Your task to perform on an android device: Add "rayovac triple a" to the cart on target, then select checkout. Image 0: 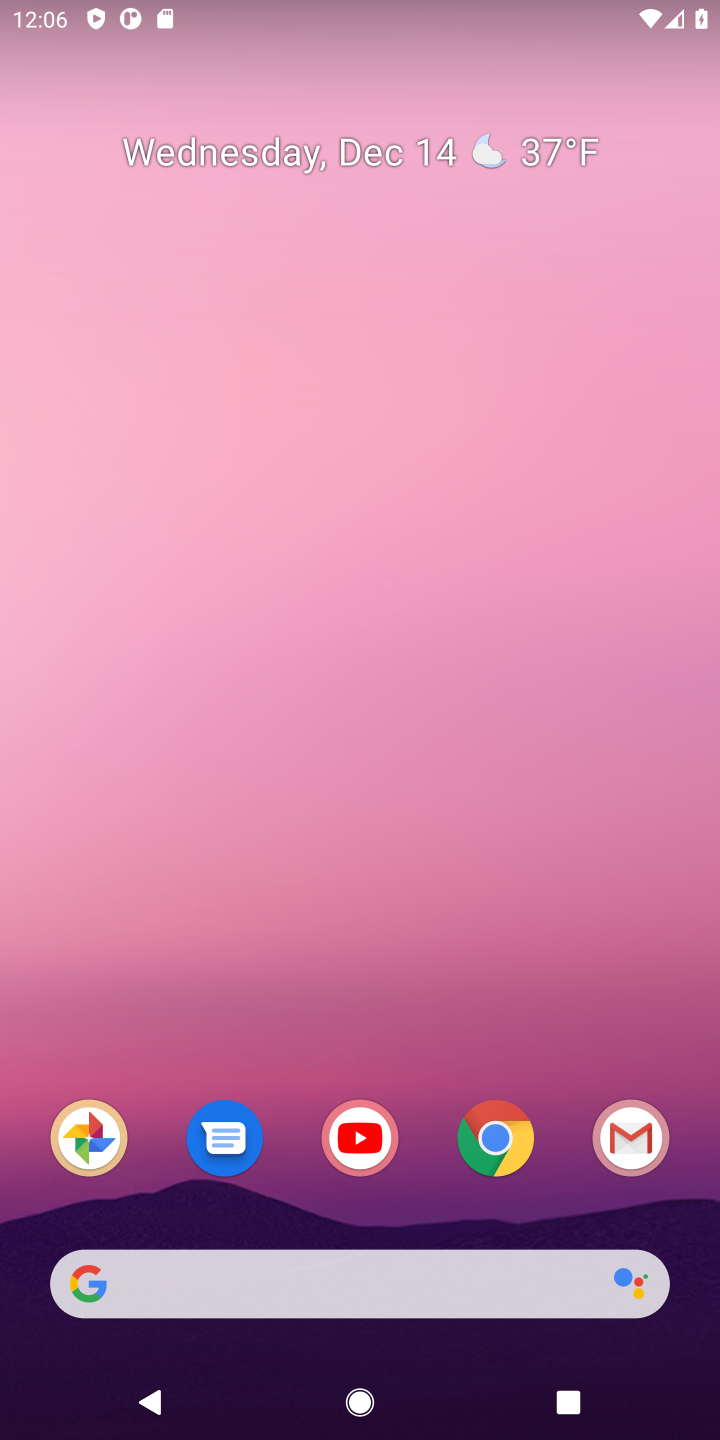
Step 0: press home button
Your task to perform on an android device: Add "rayovac triple a" to the cart on target, then select checkout. Image 1: 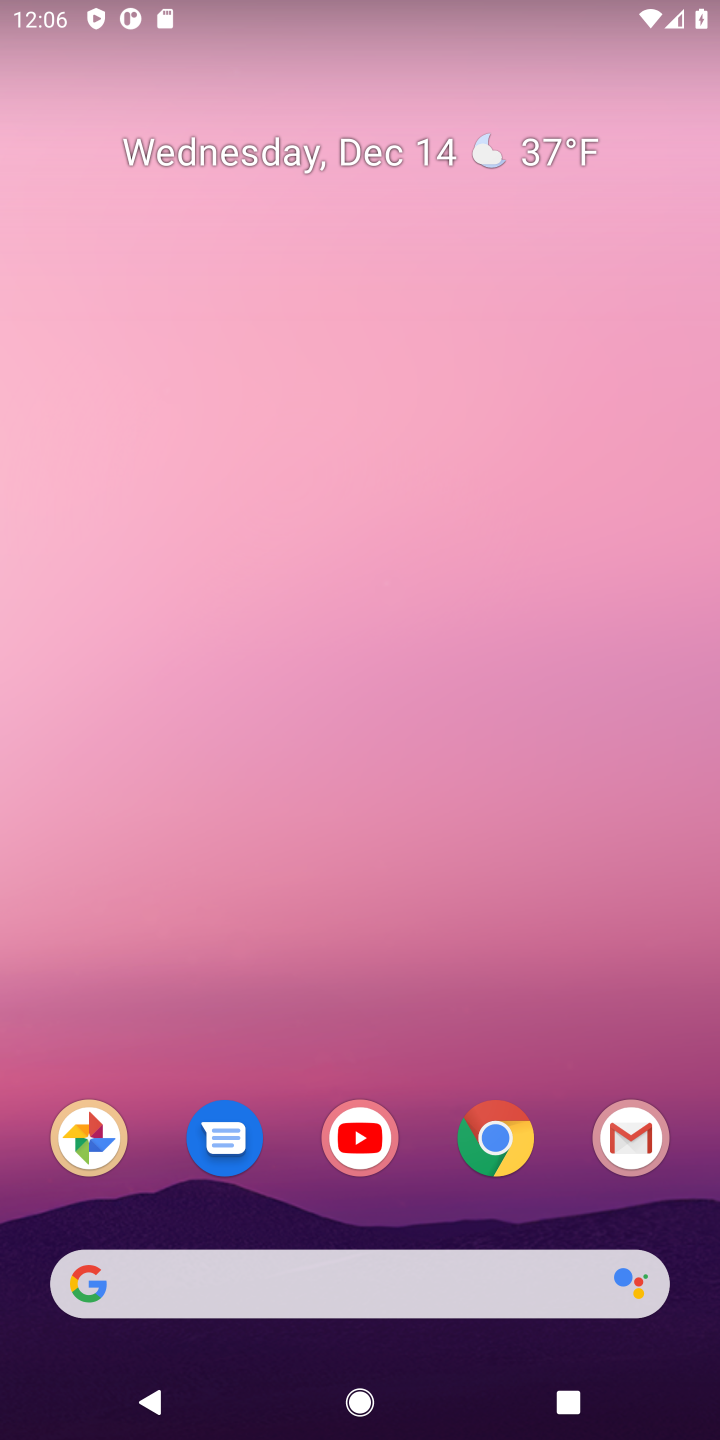
Step 1: click (509, 1120)
Your task to perform on an android device: Add "rayovac triple a" to the cart on target, then select checkout. Image 2: 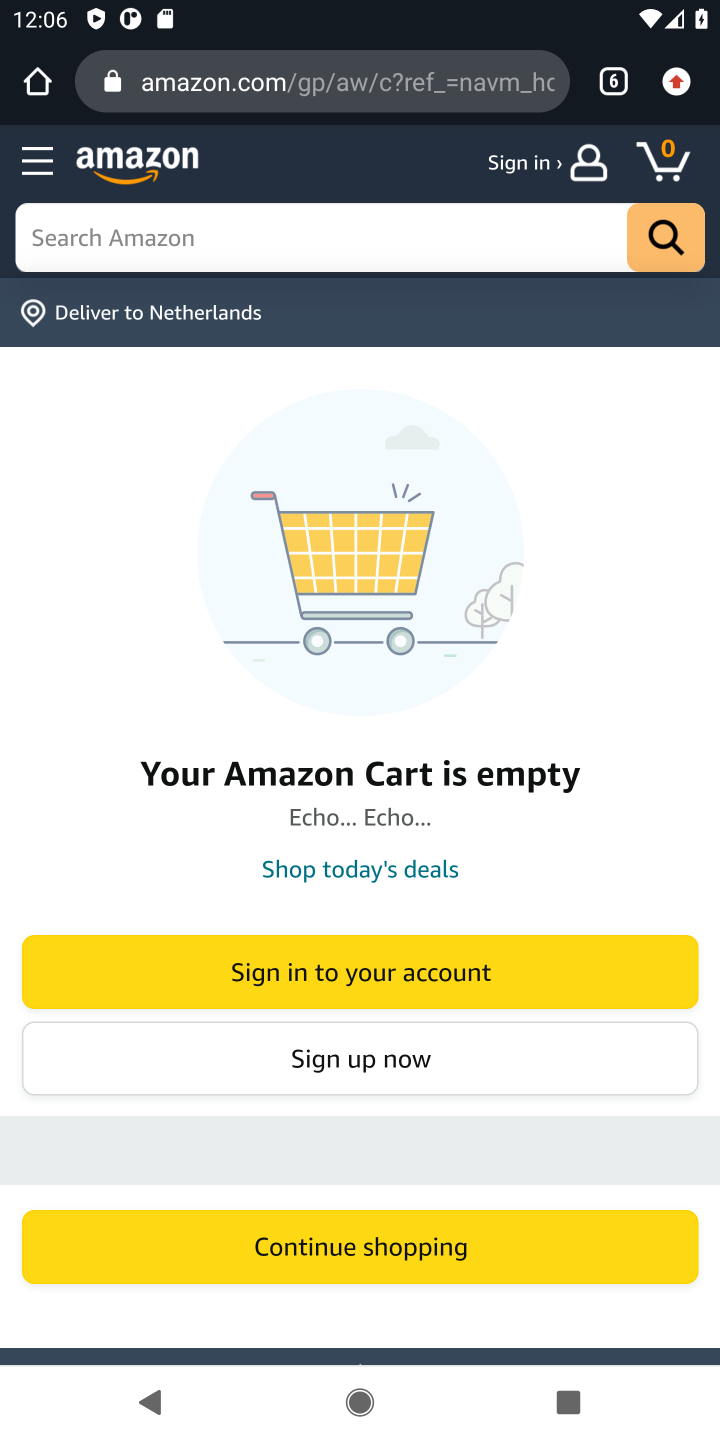
Step 2: click (617, 73)
Your task to perform on an android device: Add "rayovac triple a" to the cart on target, then select checkout. Image 3: 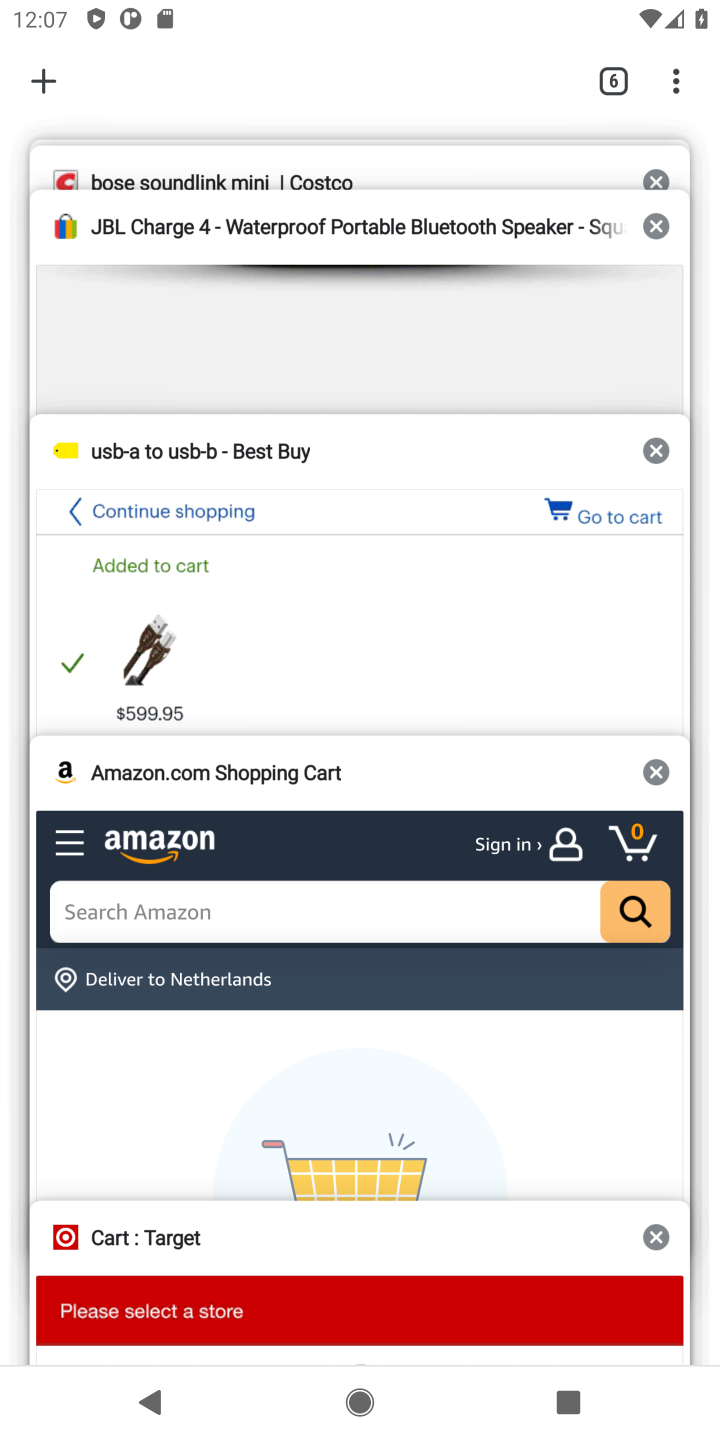
Step 3: click (243, 1263)
Your task to perform on an android device: Add "rayovac triple a" to the cart on target, then select checkout. Image 4: 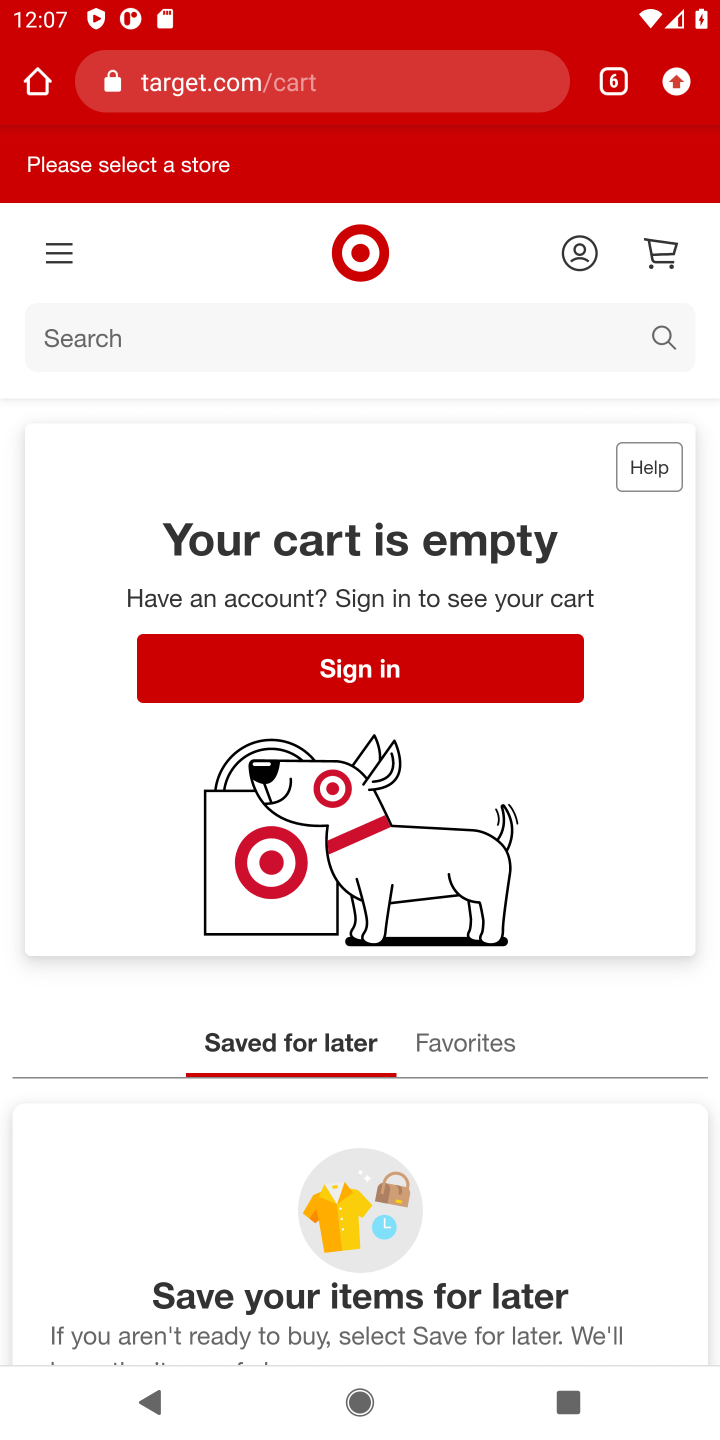
Step 4: click (267, 337)
Your task to perform on an android device: Add "rayovac triple a" to the cart on target, then select checkout. Image 5: 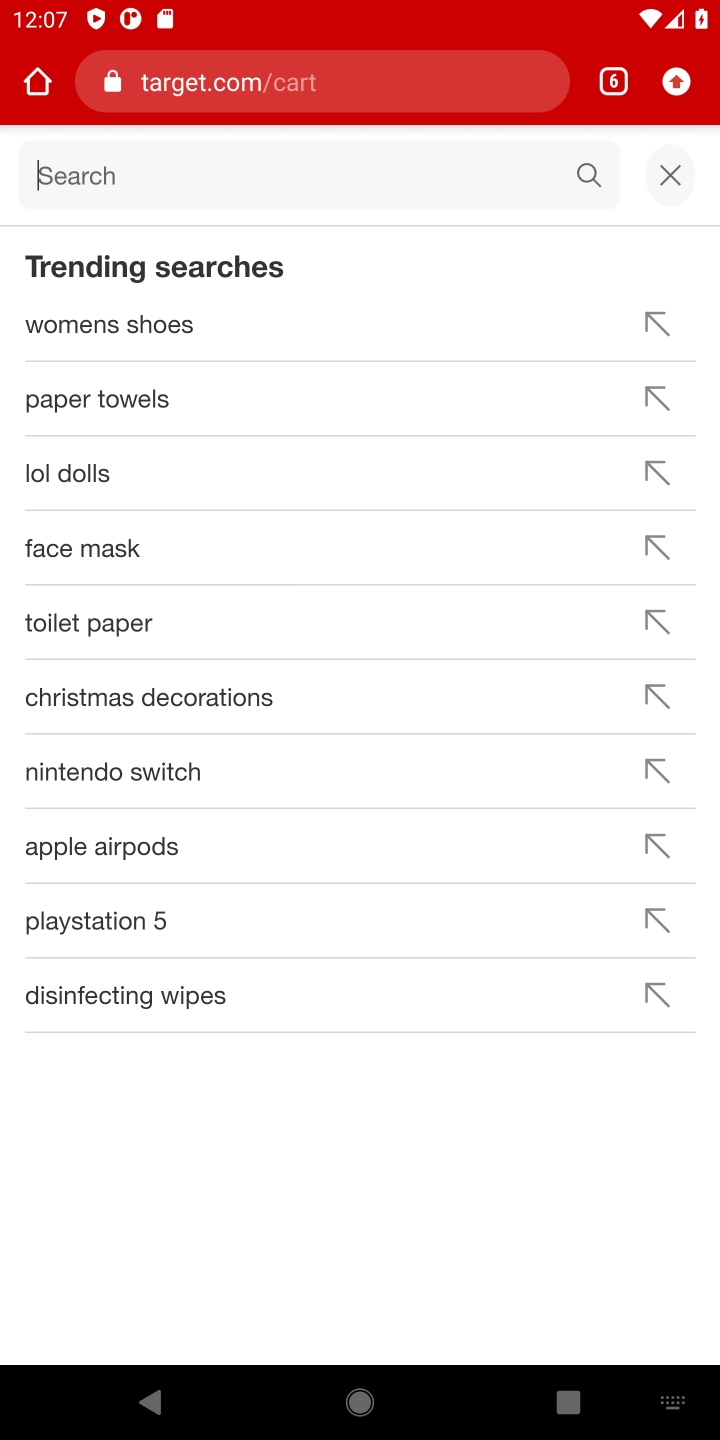
Step 5: type "rayovac triple a"
Your task to perform on an android device: Add "rayovac triple a" to the cart on target, then select checkout. Image 6: 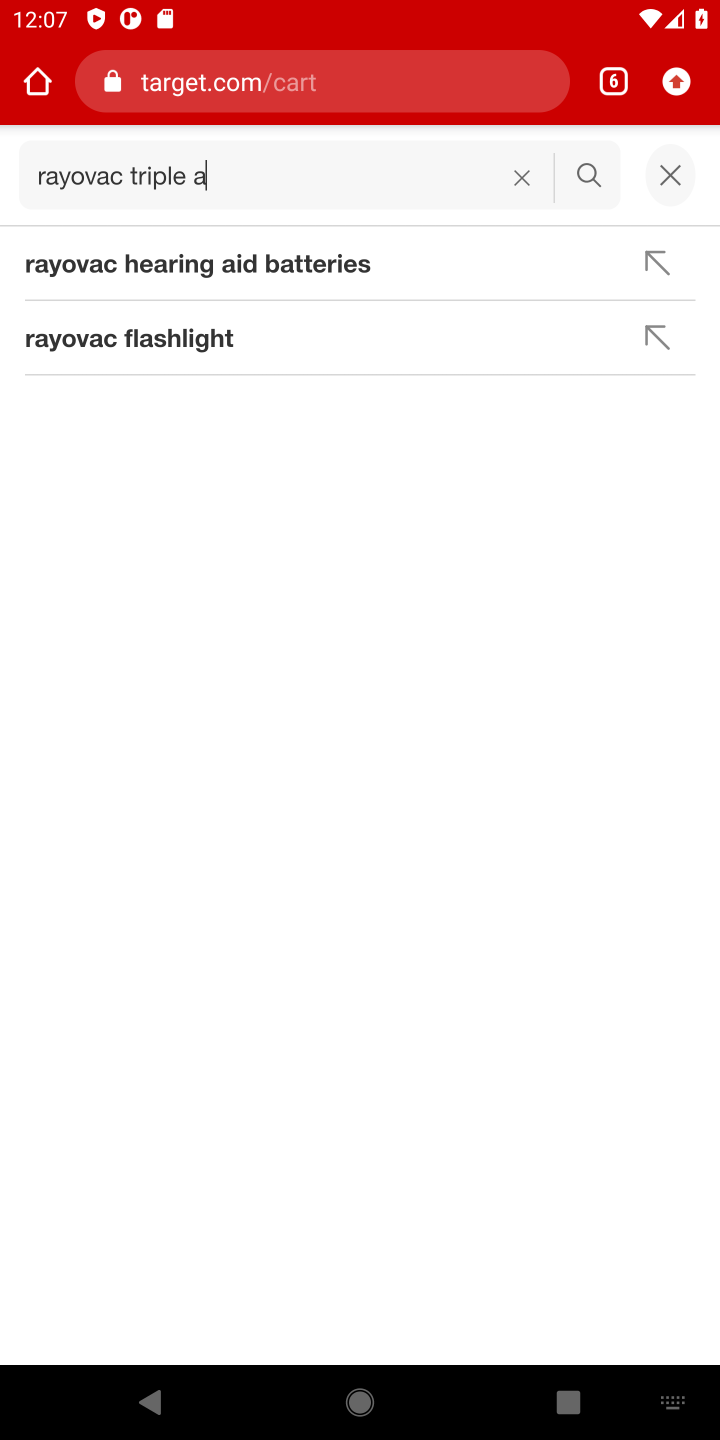
Step 6: type " batteries"
Your task to perform on an android device: Add "rayovac triple a" to the cart on target, then select checkout. Image 7: 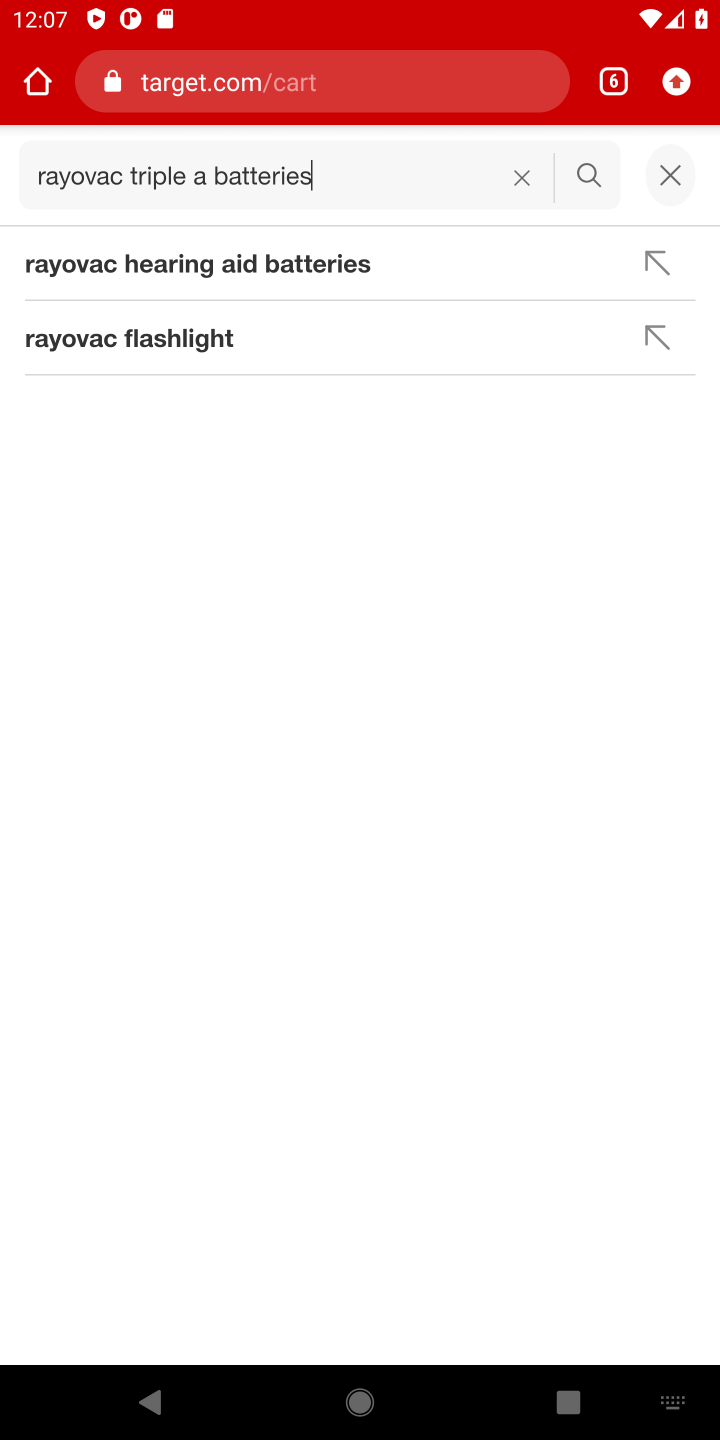
Step 7: click (593, 170)
Your task to perform on an android device: Add "rayovac triple a" to the cart on target, then select checkout. Image 8: 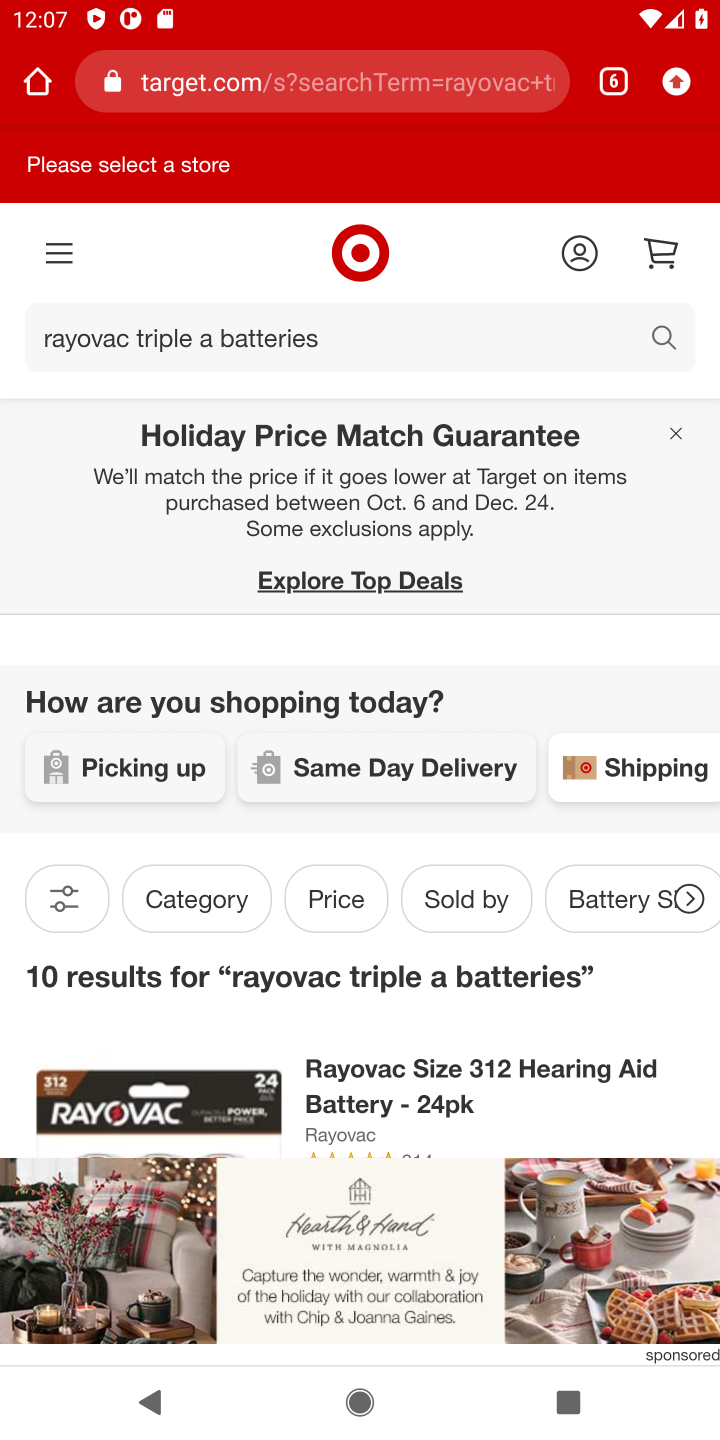
Step 8: drag from (474, 1106) to (593, 483)
Your task to perform on an android device: Add "rayovac triple a" to the cart on target, then select checkout. Image 9: 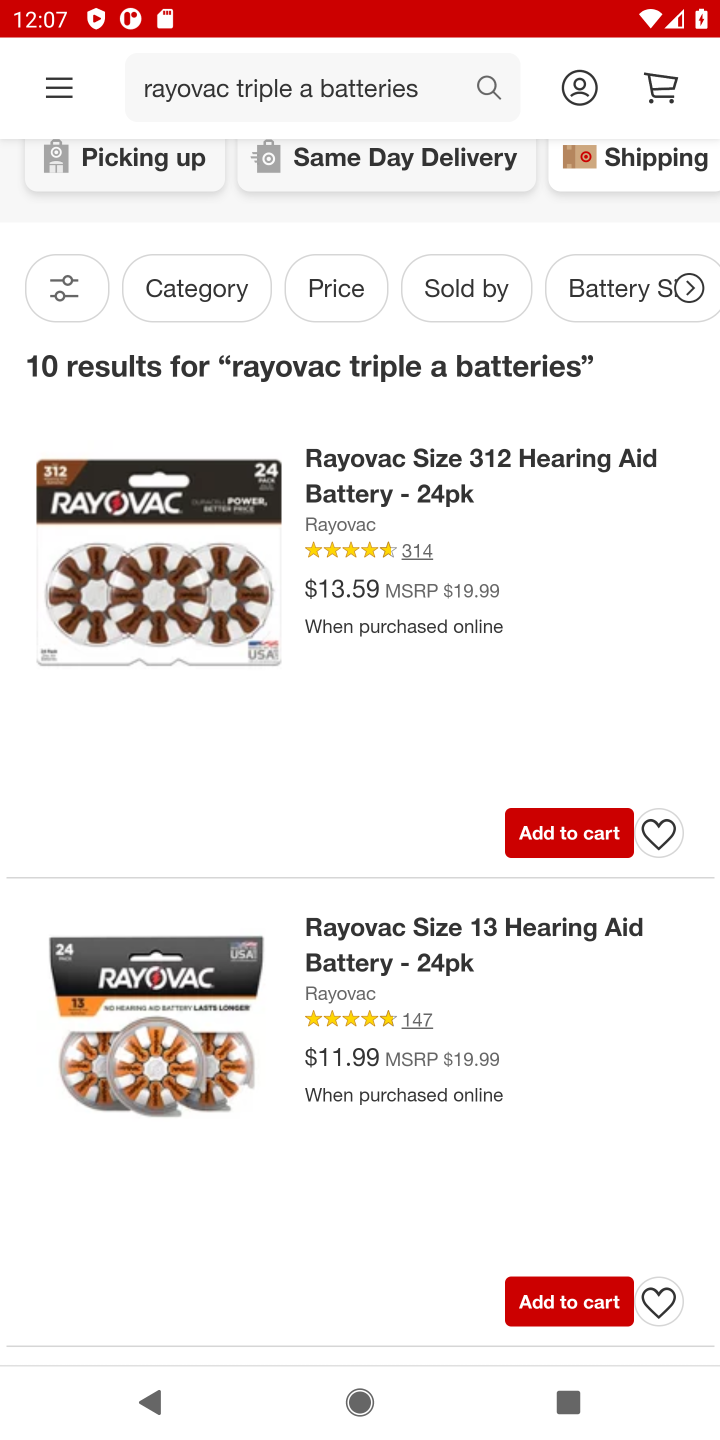
Step 9: click (572, 822)
Your task to perform on an android device: Add "rayovac triple a" to the cart on target, then select checkout. Image 10: 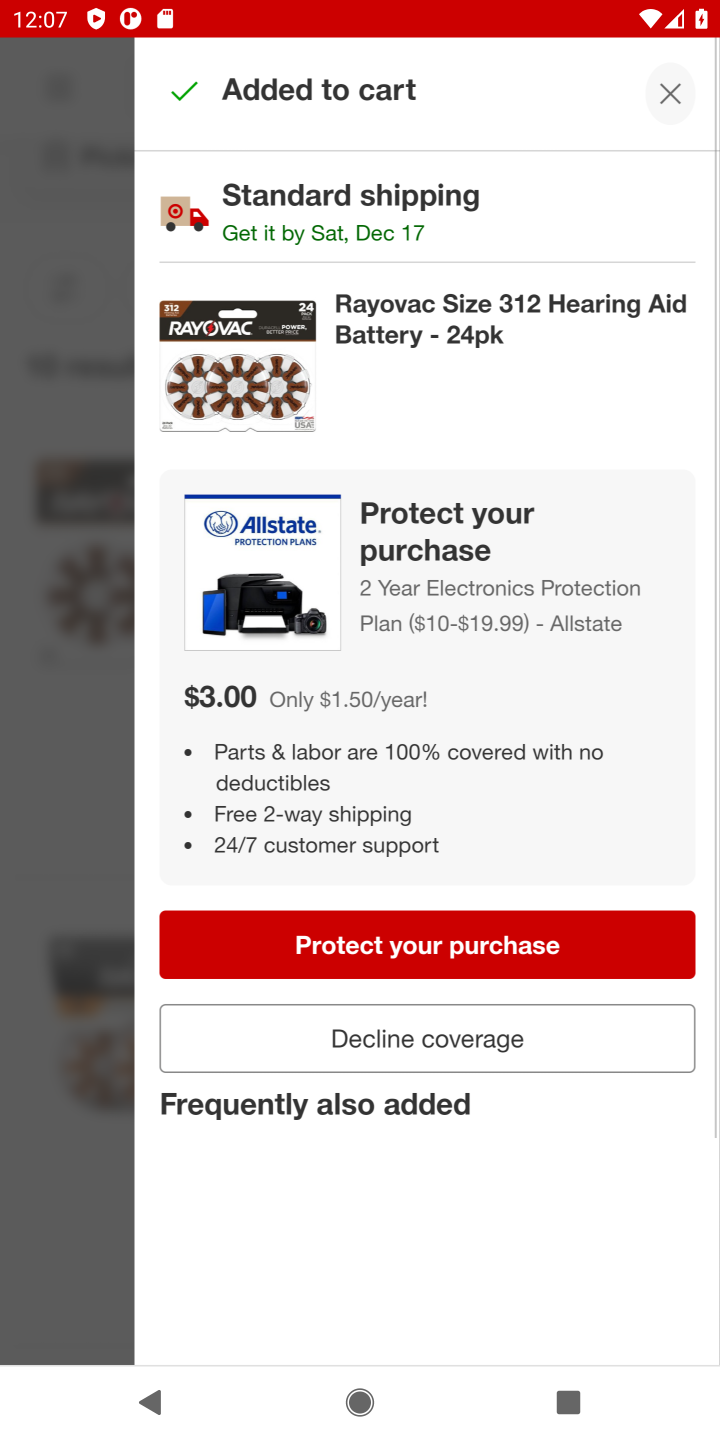
Step 10: task complete